Your task to perform on an android device: Clear the cart on ebay. Add "razer deathadder" to the cart on ebay, then select checkout. Image 0: 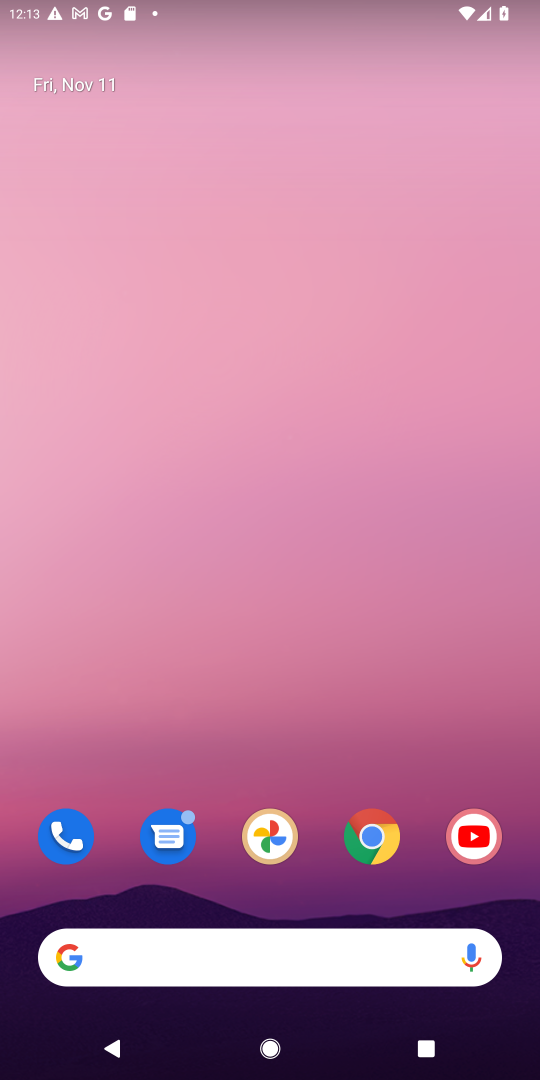
Step 0: click (256, 961)
Your task to perform on an android device: Clear the cart on ebay. Add "razer deathadder" to the cart on ebay, then select checkout. Image 1: 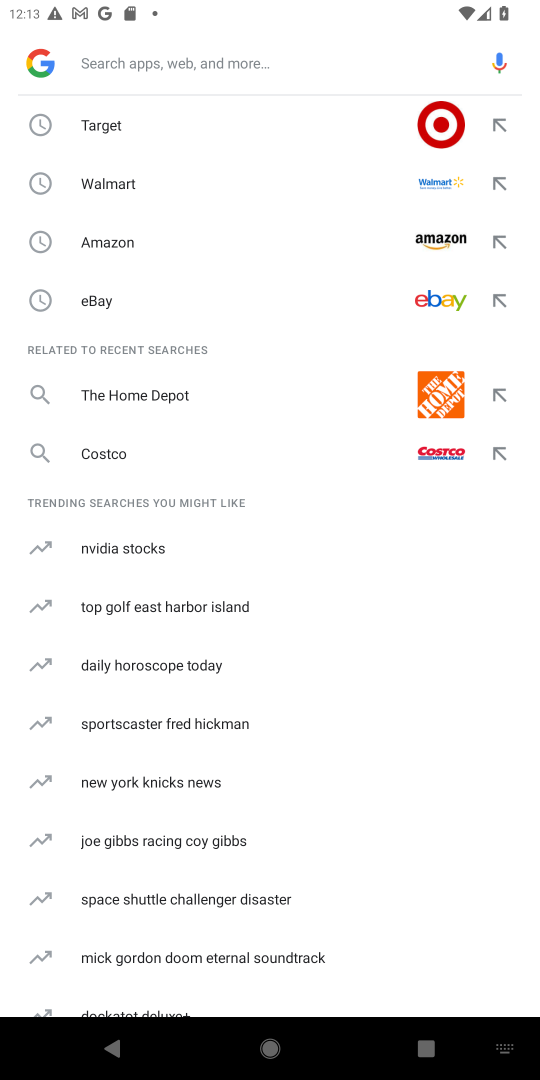
Step 1: type "razer deathadder"
Your task to perform on an android device: Clear the cart on ebay. Add "razer deathadder" to the cart on ebay, then select checkout. Image 2: 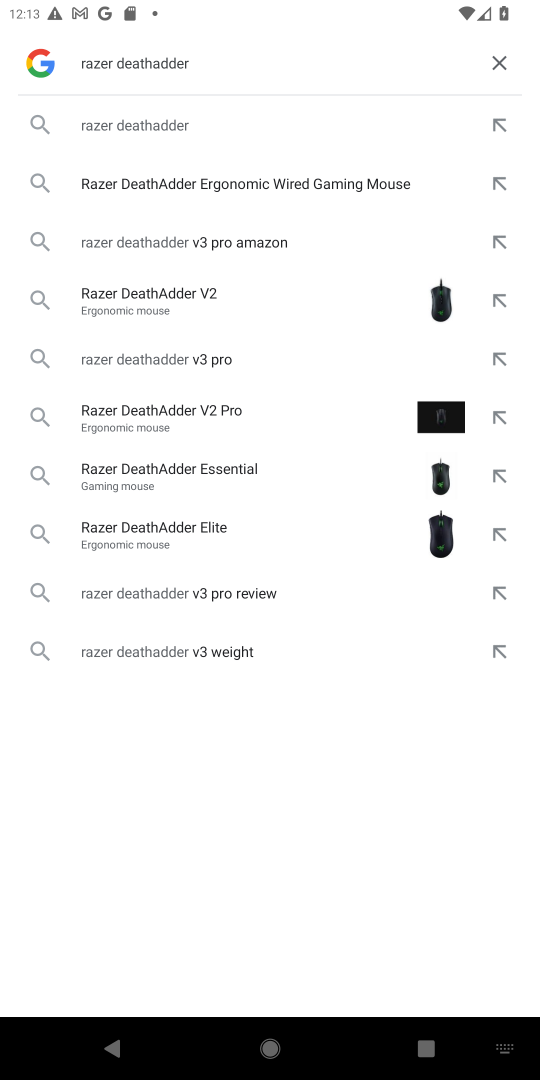
Step 2: click (132, 125)
Your task to perform on an android device: Clear the cart on ebay. Add "razer deathadder" to the cart on ebay, then select checkout. Image 3: 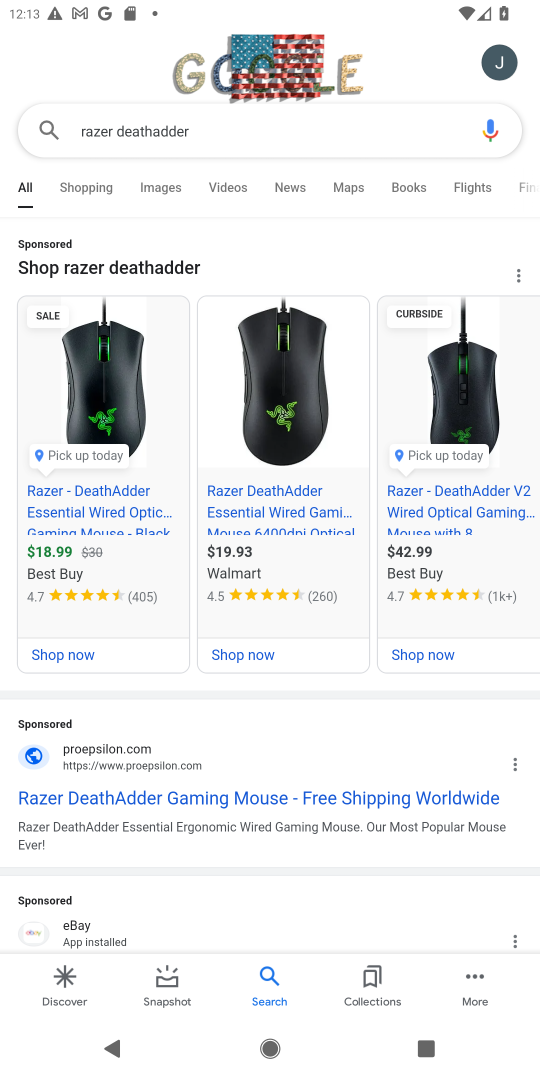
Step 3: click (257, 131)
Your task to perform on an android device: Clear the cart on ebay. Add "razer deathadder" to the cart on ebay, then select checkout. Image 4: 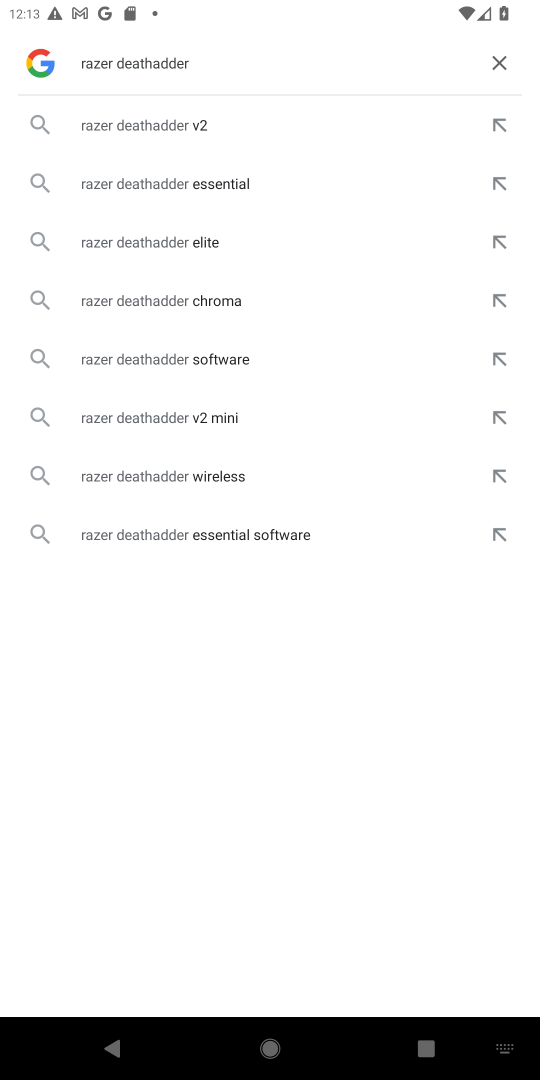
Step 4: click (489, 61)
Your task to perform on an android device: Clear the cart on ebay. Add "razer deathadder" to the cart on ebay, then select checkout. Image 5: 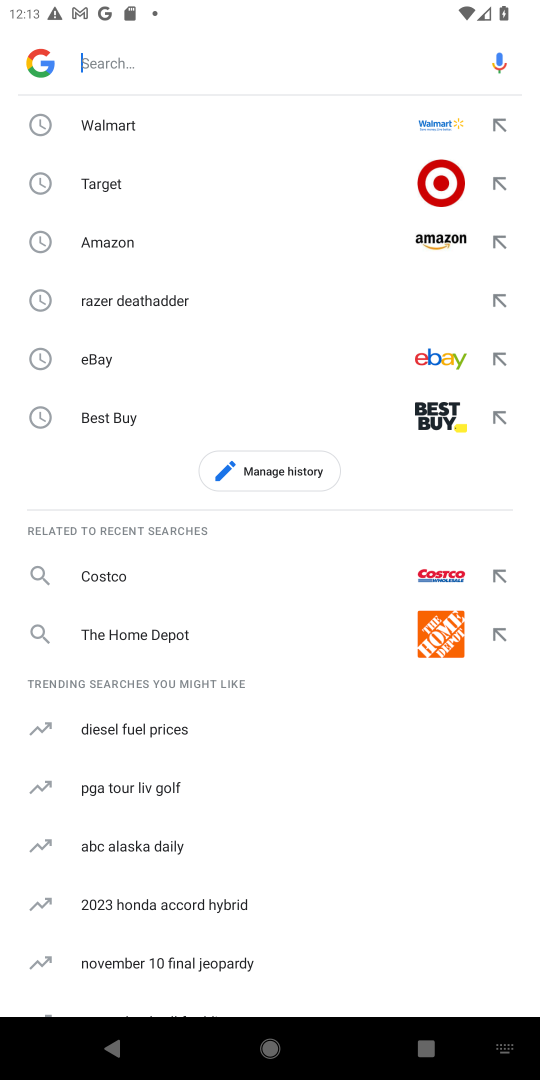
Step 5: click (144, 357)
Your task to perform on an android device: Clear the cart on ebay. Add "razer deathadder" to the cart on ebay, then select checkout. Image 6: 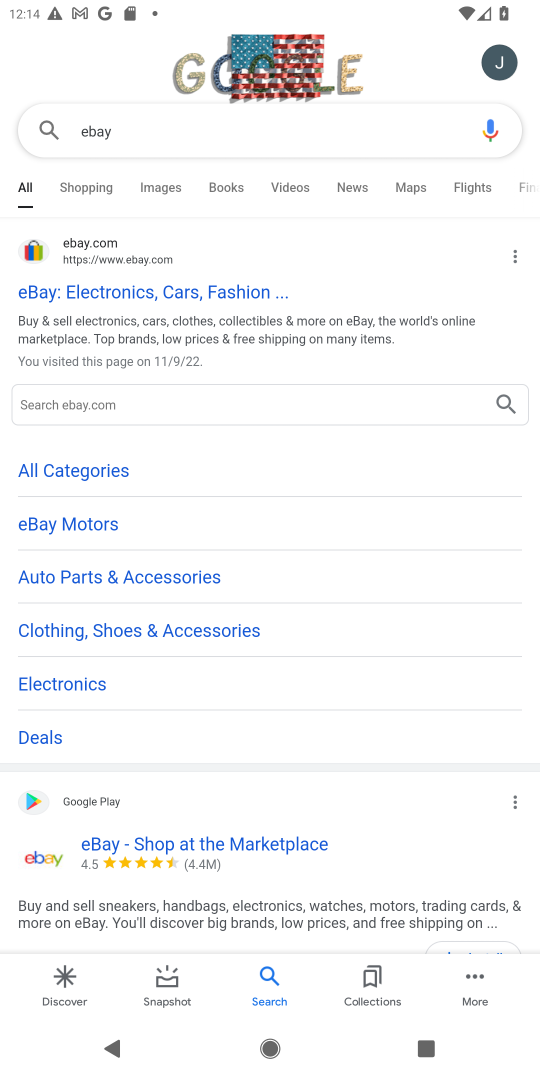
Step 6: click (91, 241)
Your task to perform on an android device: Clear the cart on ebay. Add "razer deathadder" to the cart on ebay, then select checkout. Image 7: 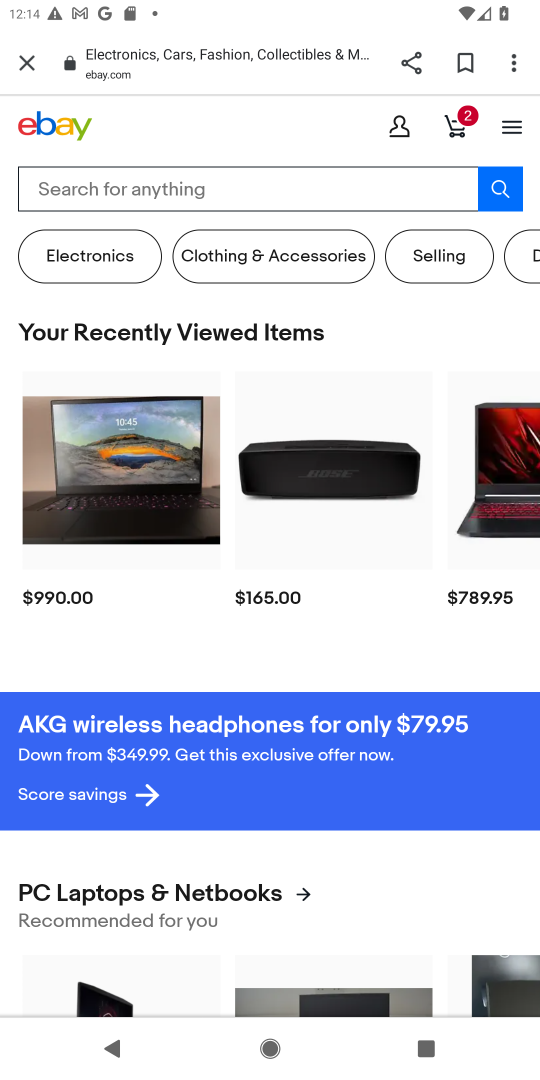
Step 7: click (162, 182)
Your task to perform on an android device: Clear the cart on ebay. Add "razer deathadder" to the cart on ebay, then select checkout. Image 8: 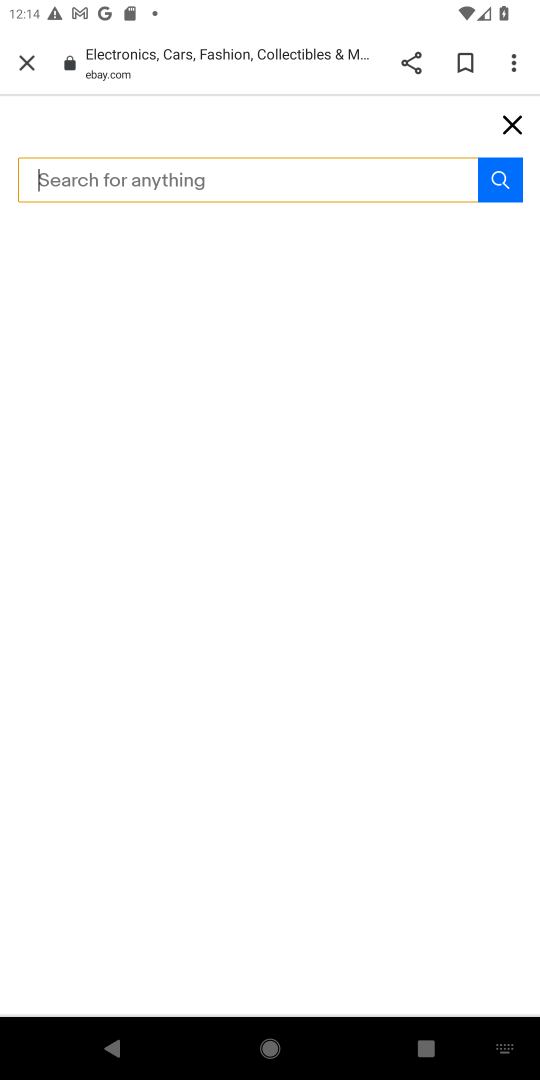
Step 8: type "razer deathadder"
Your task to perform on an android device: Clear the cart on ebay. Add "razer deathadder" to the cart on ebay, then select checkout. Image 9: 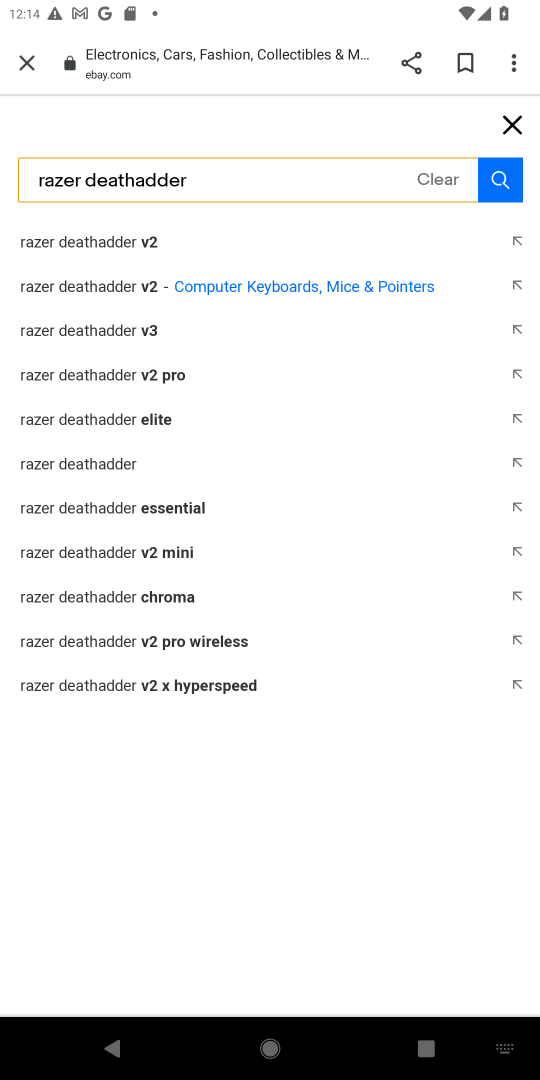
Step 9: click (128, 329)
Your task to perform on an android device: Clear the cart on ebay. Add "razer deathadder" to the cart on ebay, then select checkout. Image 10: 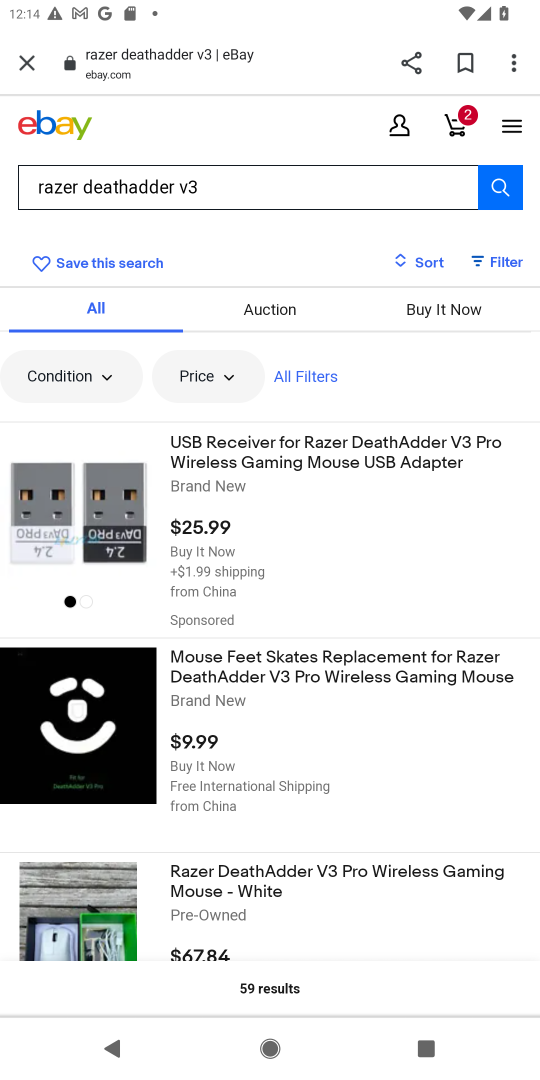
Step 10: click (191, 474)
Your task to perform on an android device: Clear the cart on ebay. Add "razer deathadder" to the cart on ebay, then select checkout. Image 11: 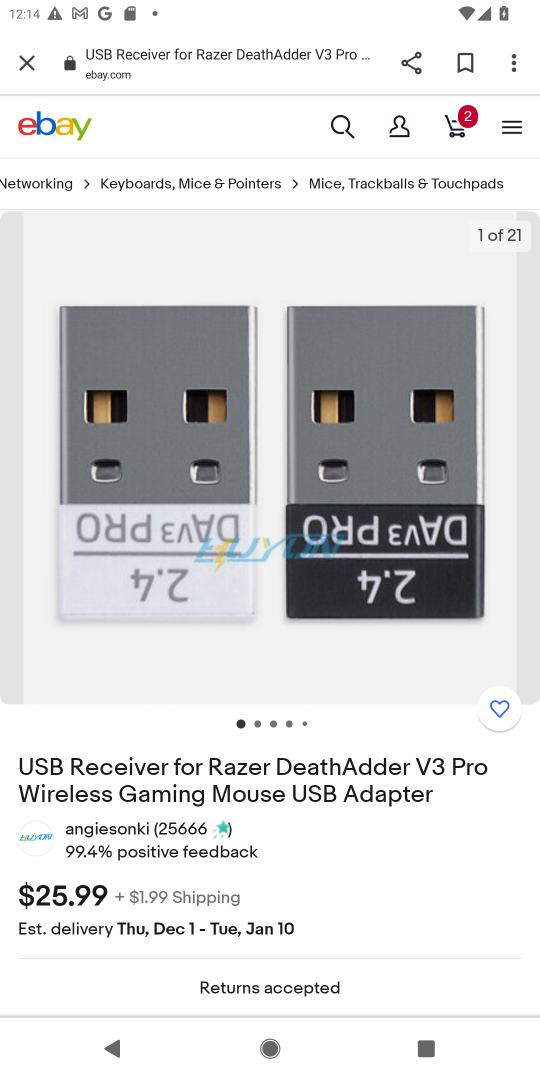
Step 11: drag from (244, 791) to (244, 471)
Your task to perform on an android device: Clear the cart on ebay. Add "razer deathadder" to the cart on ebay, then select checkout. Image 12: 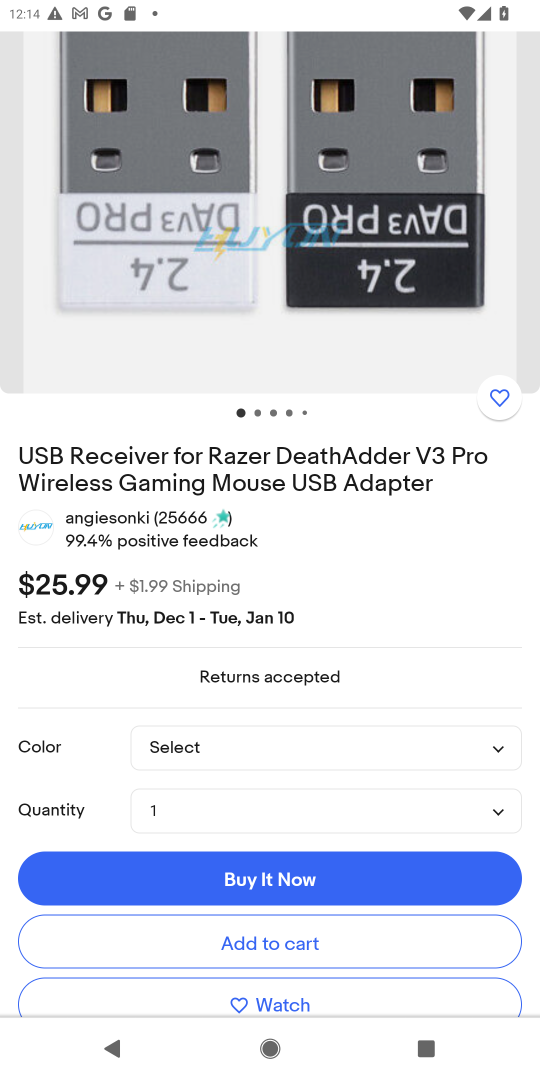
Step 12: click (259, 955)
Your task to perform on an android device: Clear the cart on ebay. Add "razer deathadder" to the cart on ebay, then select checkout. Image 13: 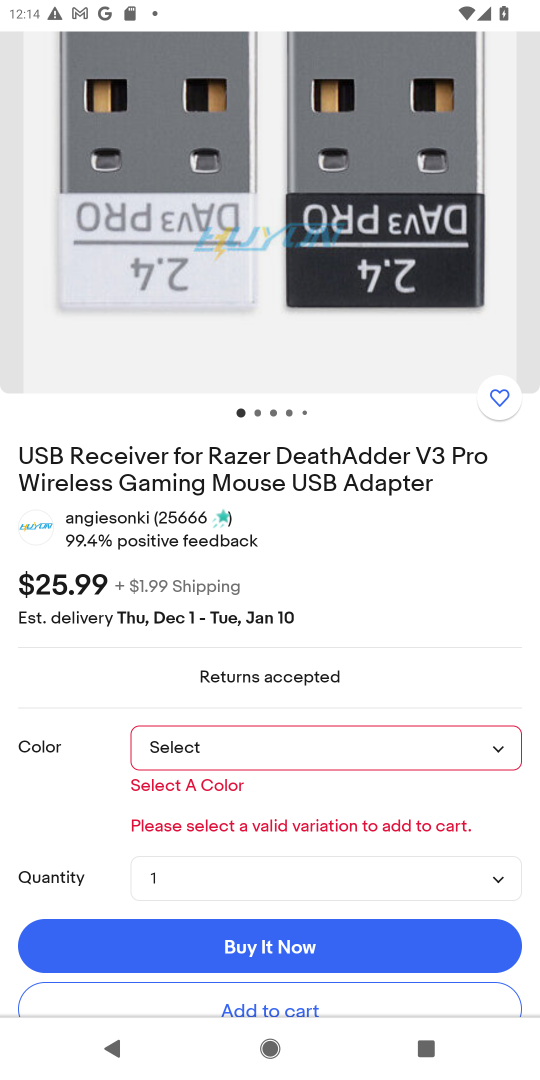
Step 13: click (487, 748)
Your task to perform on an android device: Clear the cart on ebay. Add "razer deathadder" to the cart on ebay, then select checkout. Image 14: 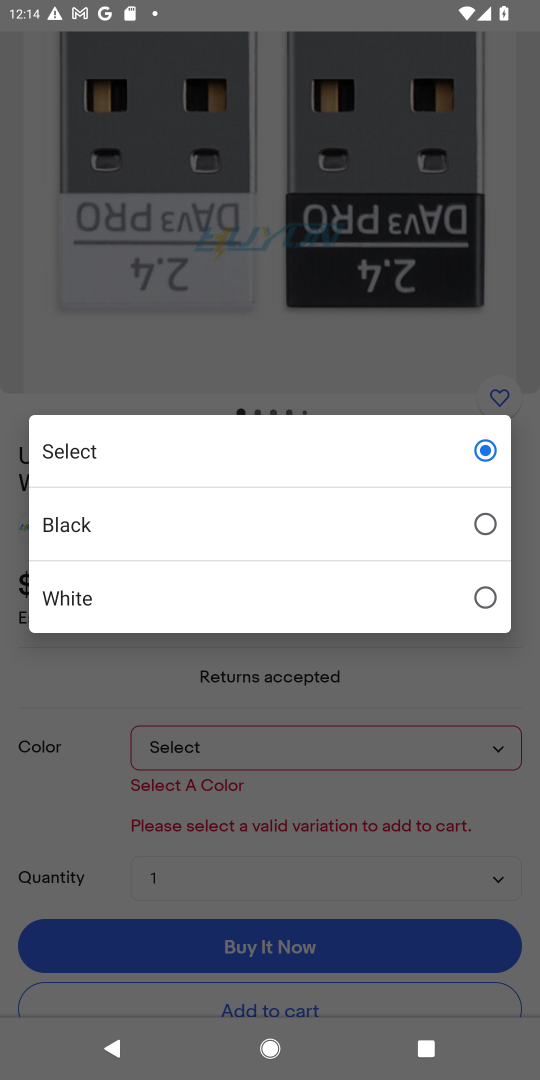
Step 14: click (485, 527)
Your task to perform on an android device: Clear the cart on ebay. Add "razer deathadder" to the cart on ebay, then select checkout. Image 15: 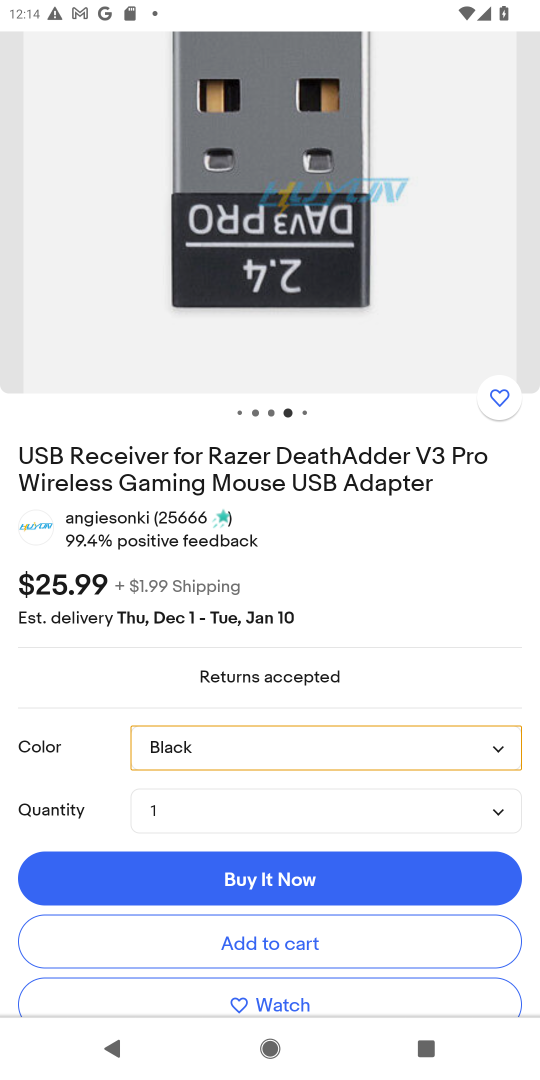
Step 15: click (237, 943)
Your task to perform on an android device: Clear the cart on ebay. Add "razer deathadder" to the cart on ebay, then select checkout. Image 16: 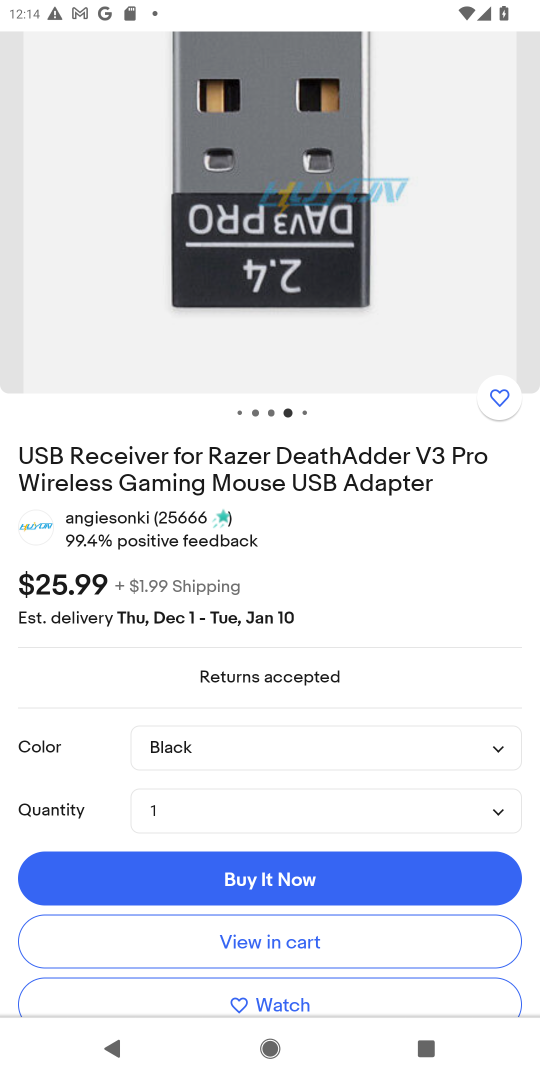
Step 16: click (237, 943)
Your task to perform on an android device: Clear the cart on ebay. Add "razer deathadder" to the cart on ebay, then select checkout. Image 17: 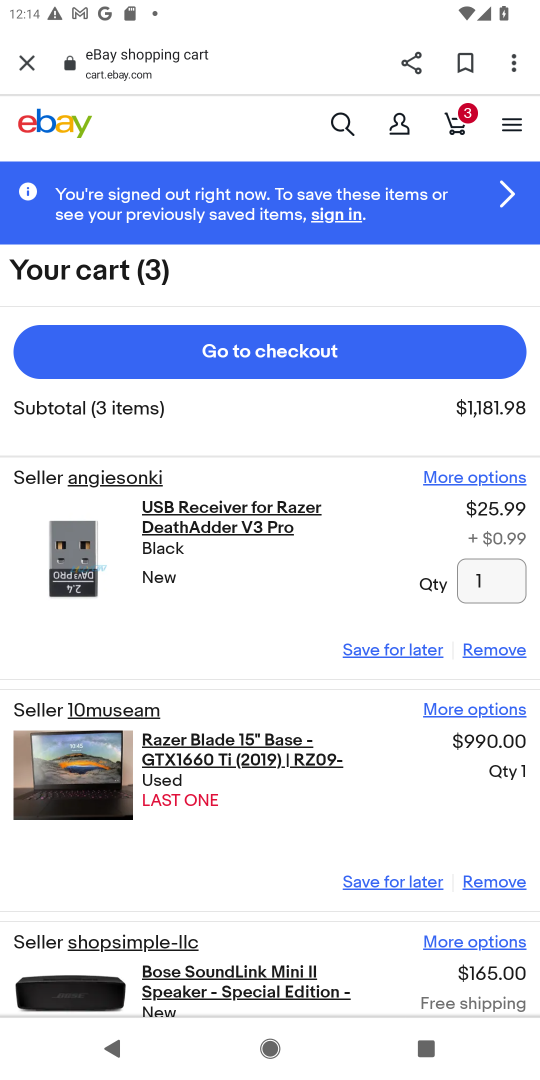
Step 17: click (283, 365)
Your task to perform on an android device: Clear the cart on ebay. Add "razer deathadder" to the cart on ebay, then select checkout. Image 18: 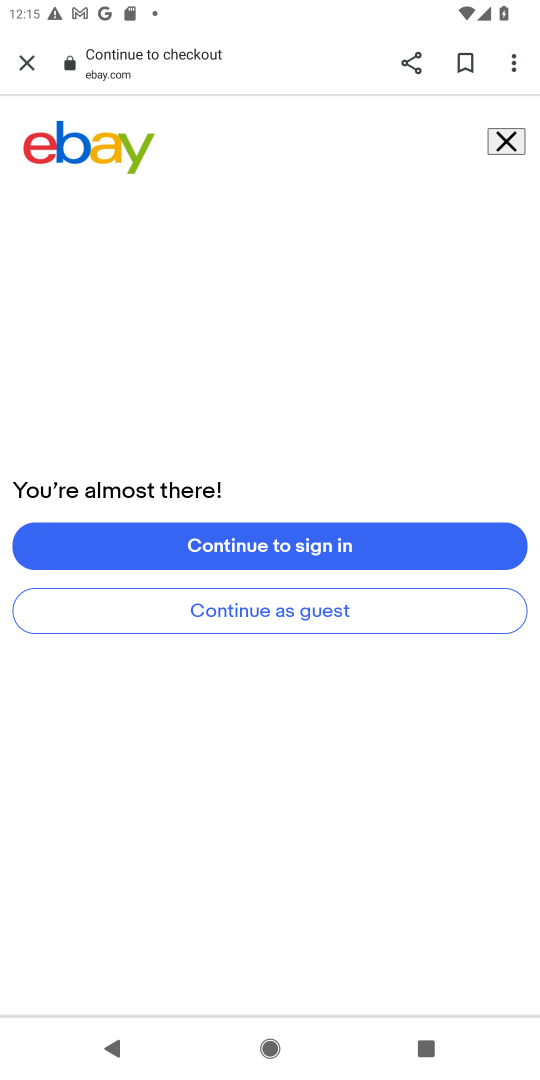
Step 18: task complete